Your task to perform on an android device: toggle javascript in the chrome app Image 0: 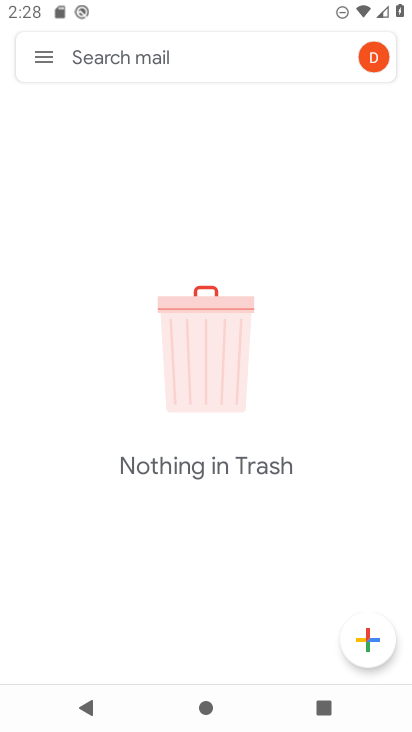
Step 0: press home button
Your task to perform on an android device: toggle javascript in the chrome app Image 1: 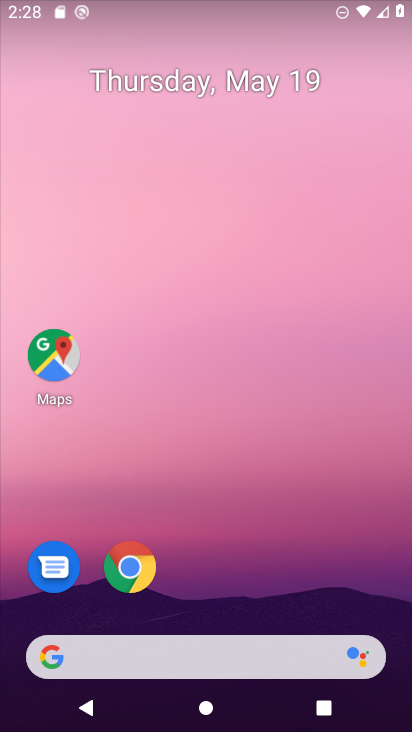
Step 1: click (135, 577)
Your task to perform on an android device: toggle javascript in the chrome app Image 2: 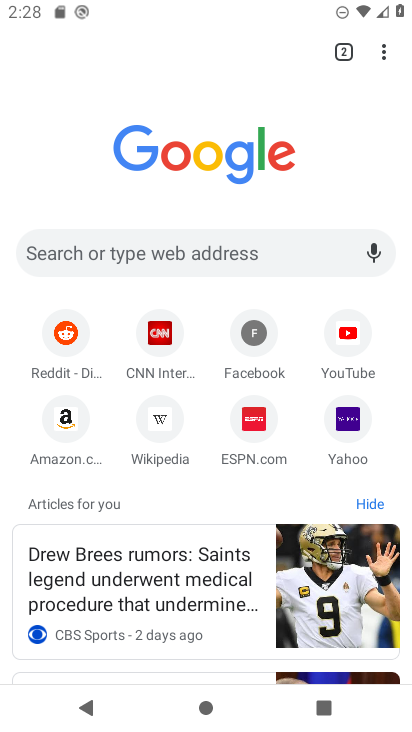
Step 2: click (381, 53)
Your task to perform on an android device: toggle javascript in the chrome app Image 3: 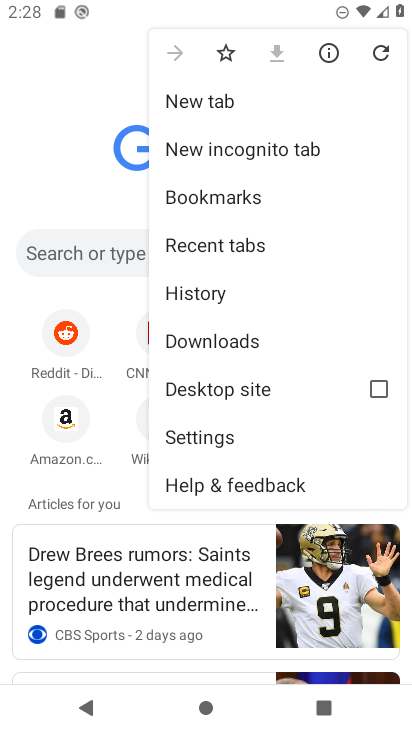
Step 3: click (229, 432)
Your task to perform on an android device: toggle javascript in the chrome app Image 4: 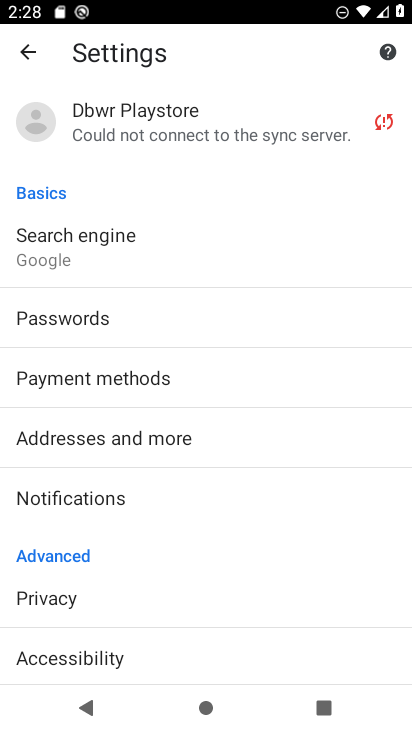
Step 4: drag from (215, 534) to (244, 214)
Your task to perform on an android device: toggle javascript in the chrome app Image 5: 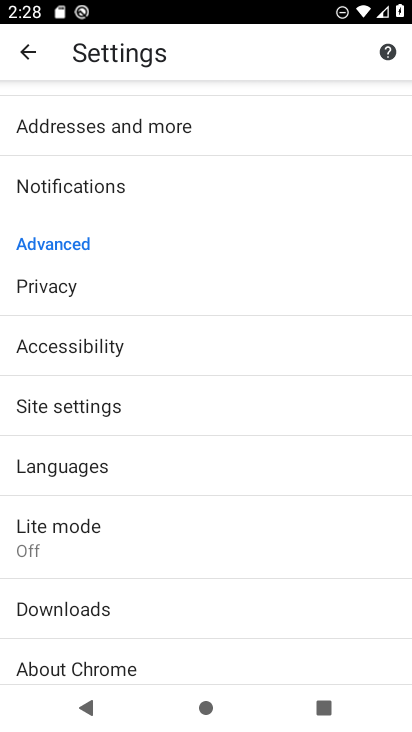
Step 5: click (187, 414)
Your task to perform on an android device: toggle javascript in the chrome app Image 6: 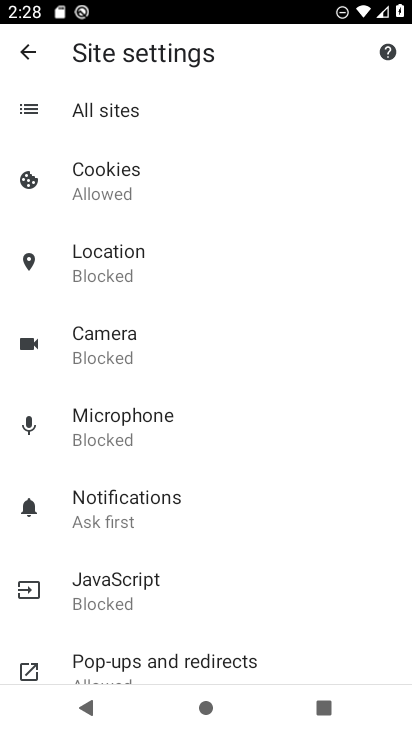
Step 6: click (212, 588)
Your task to perform on an android device: toggle javascript in the chrome app Image 7: 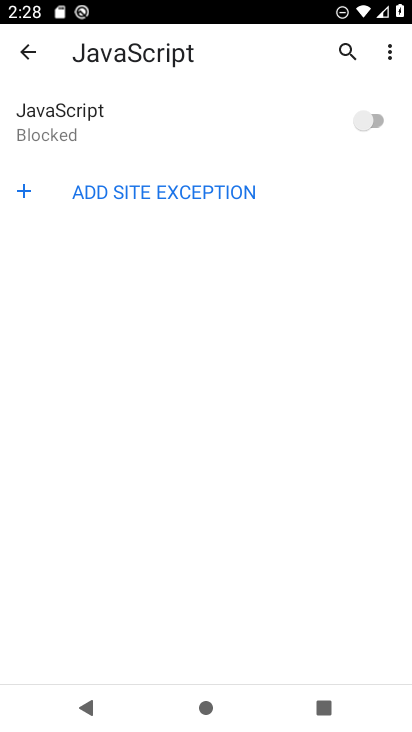
Step 7: click (370, 113)
Your task to perform on an android device: toggle javascript in the chrome app Image 8: 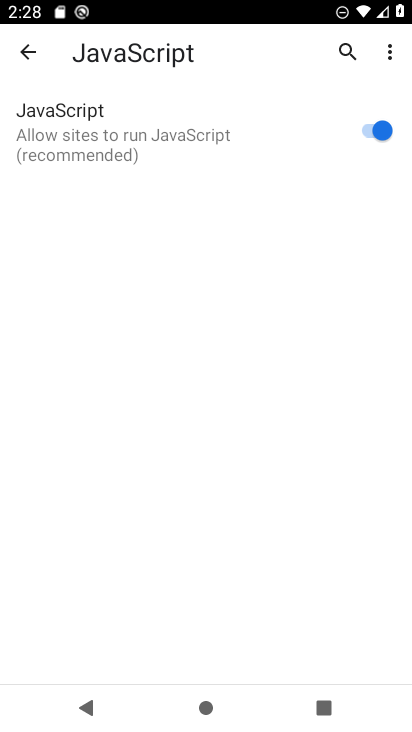
Step 8: task complete